Your task to perform on an android device: Open Google Maps Image 0: 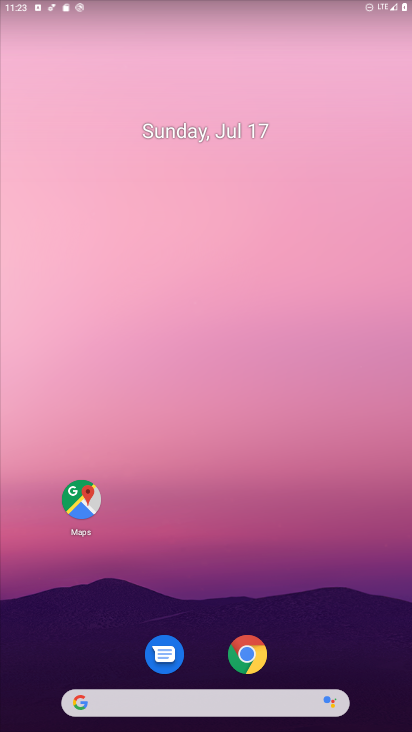
Step 0: click (87, 498)
Your task to perform on an android device: Open Google Maps Image 1: 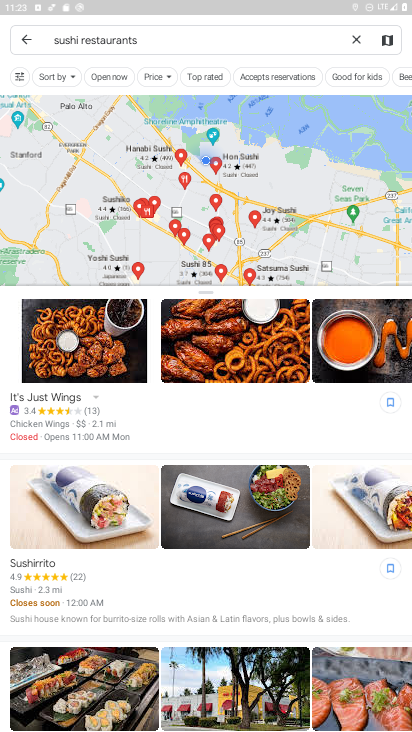
Step 1: task complete